Your task to perform on an android device: Clear the shopping cart on newegg. Search for razer nari on newegg, select the first entry, add it to the cart, then select checkout. Image 0: 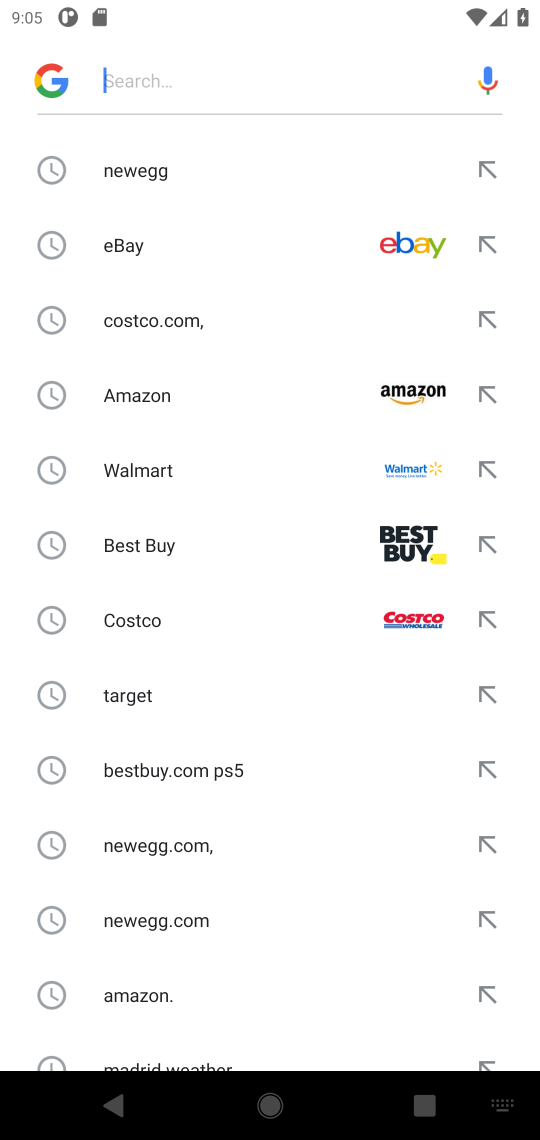
Step 0: click (169, 191)
Your task to perform on an android device: Clear the shopping cart on newegg. Search for razer nari on newegg, select the first entry, add it to the cart, then select checkout. Image 1: 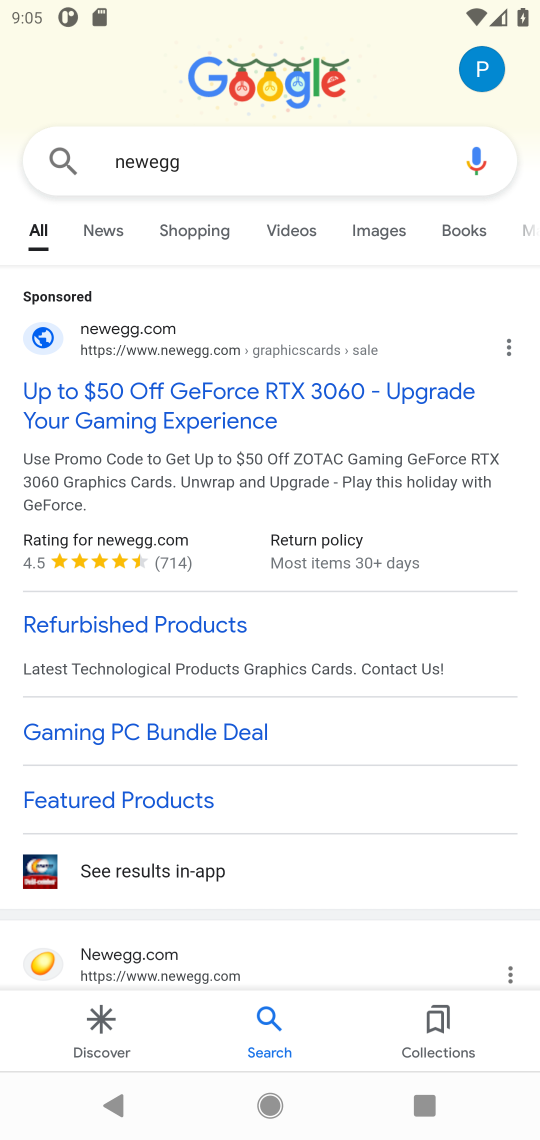
Step 1: click (135, 958)
Your task to perform on an android device: Clear the shopping cart on newegg. Search for razer nari on newegg, select the first entry, add it to the cart, then select checkout. Image 2: 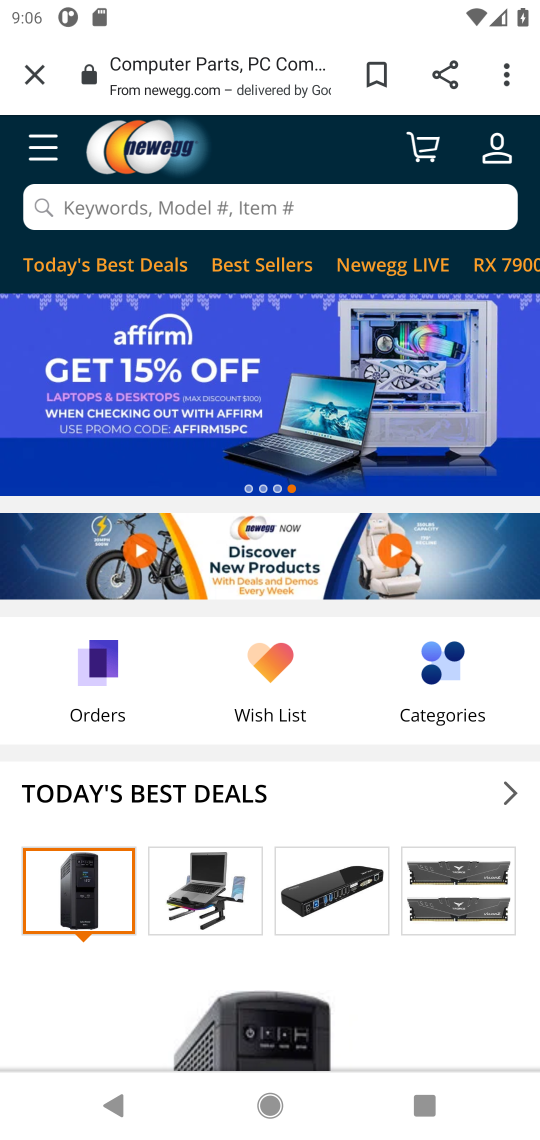
Step 2: click (295, 190)
Your task to perform on an android device: Clear the shopping cart on newegg. Search for razer nari on newegg, select the first entry, add it to the cart, then select checkout. Image 3: 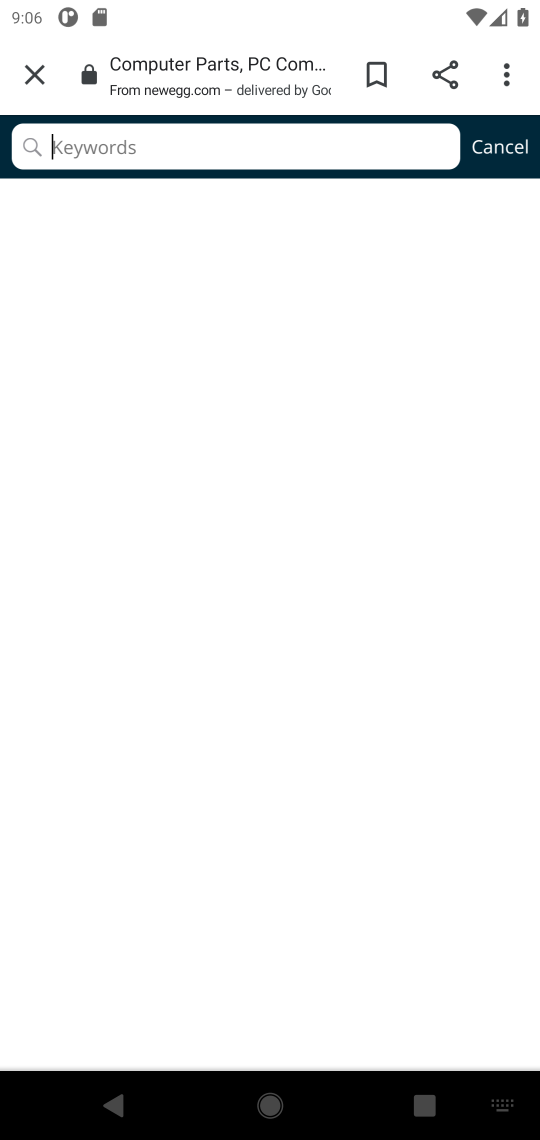
Step 3: type "razer nari"
Your task to perform on an android device: Clear the shopping cart on newegg. Search for razer nari on newegg, select the first entry, add it to the cart, then select checkout. Image 4: 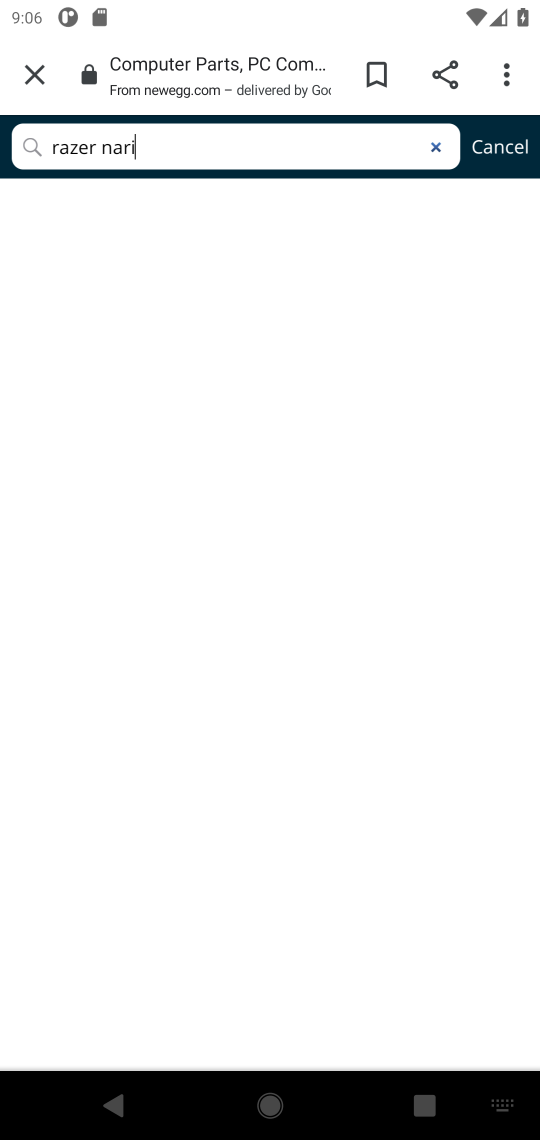
Step 4: type ""
Your task to perform on an android device: Clear the shopping cart on newegg. Search for razer nari on newegg, select the first entry, add it to the cart, then select checkout. Image 5: 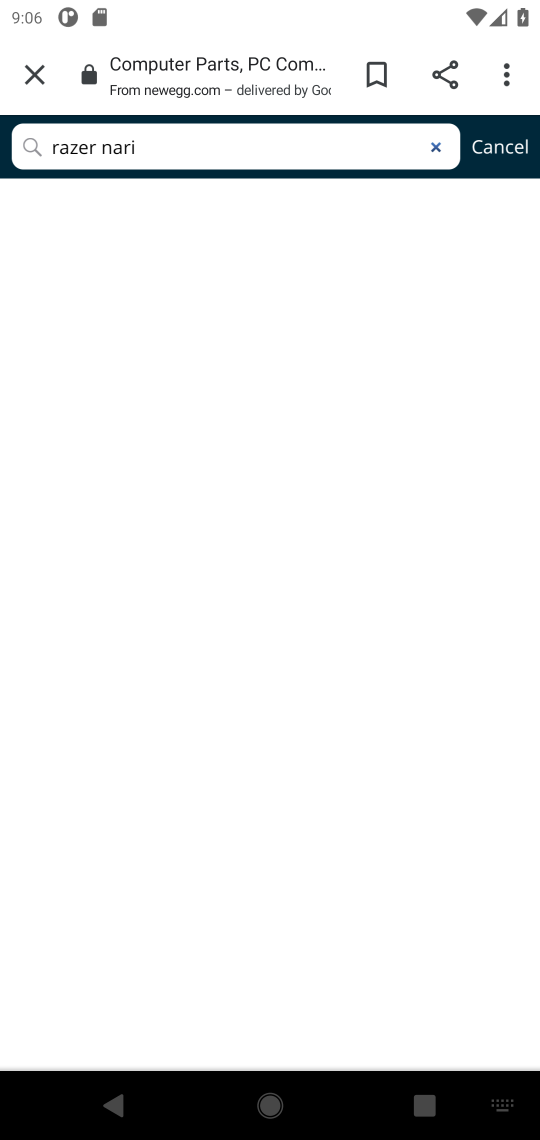
Step 5: click (17, 150)
Your task to perform on an android device: Clear the shopping cart on newegg. Search for razer nari on newegg, select the first entry, add it to the cart, then select checkout. Image 6: 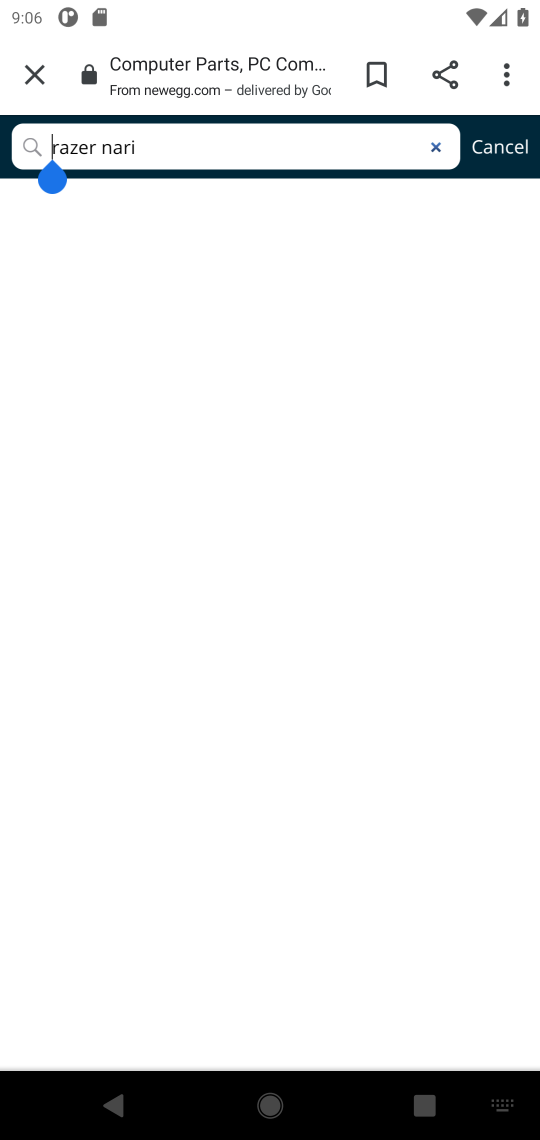
Step 6: task complete